Your task to perform on an android device: Open maps Image 0: 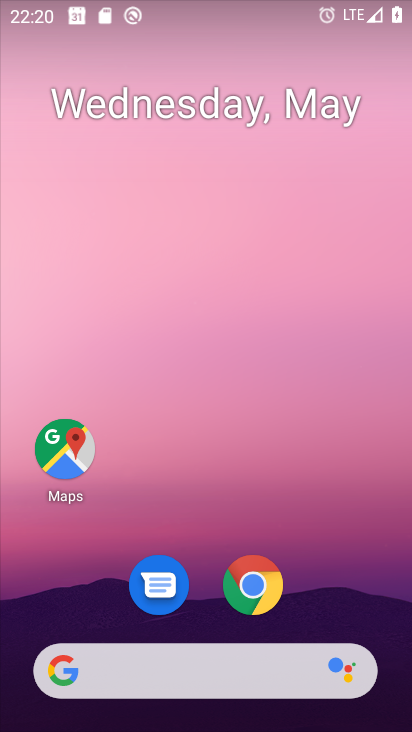
Step 0: click (66, 450)
Your task to perform on an android device: Open maps Image 1: 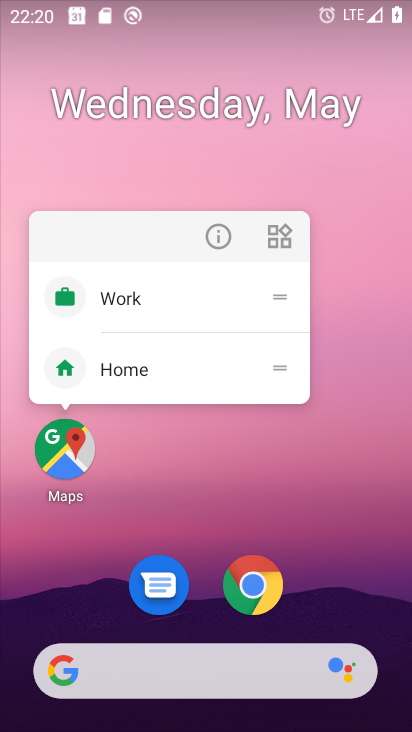
Step 1: click (64, 449)
Your task to perform on an android device: Open maps Image 2: 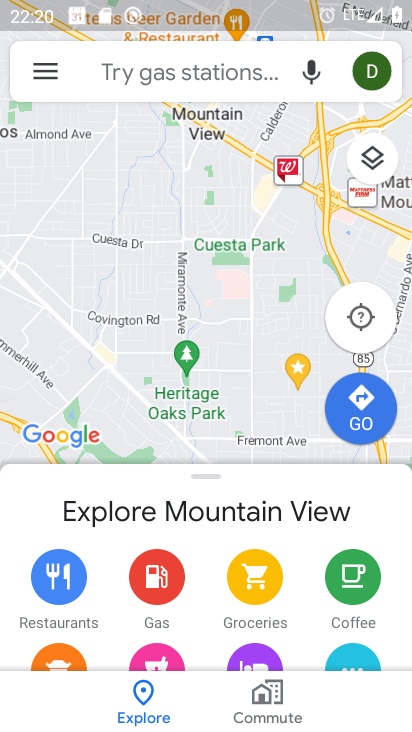
Step 2: task complete